Your task to perform on an android device: Go to Amazon Image 0: 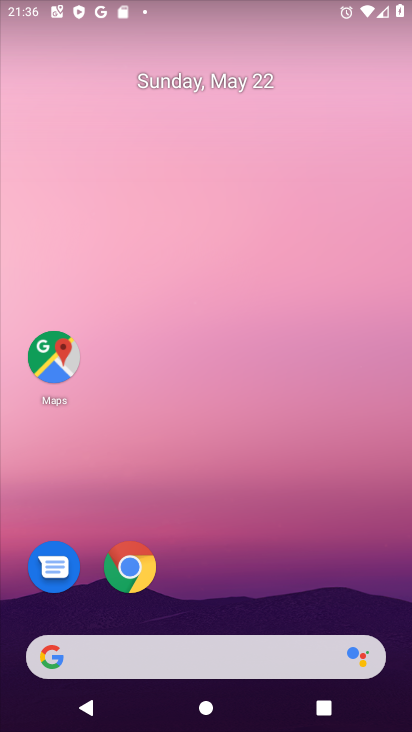
Step 0: click (131, 570)
Your task to perform on an android device: Go to Amazon Image 1: 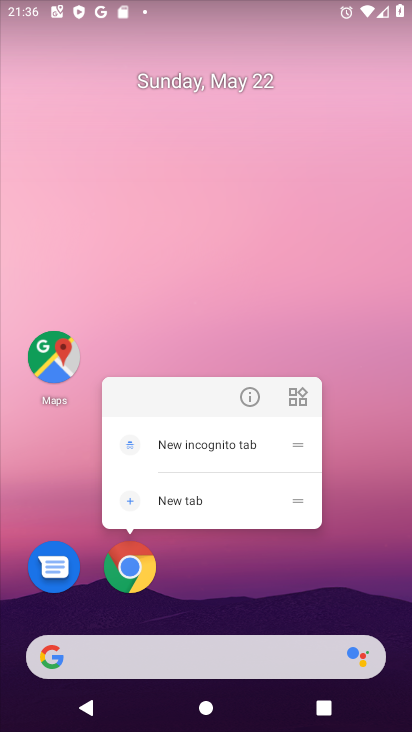
Step 1: click (131, 570)
Your task to perform on an android device: Go to Amazon Image 2: 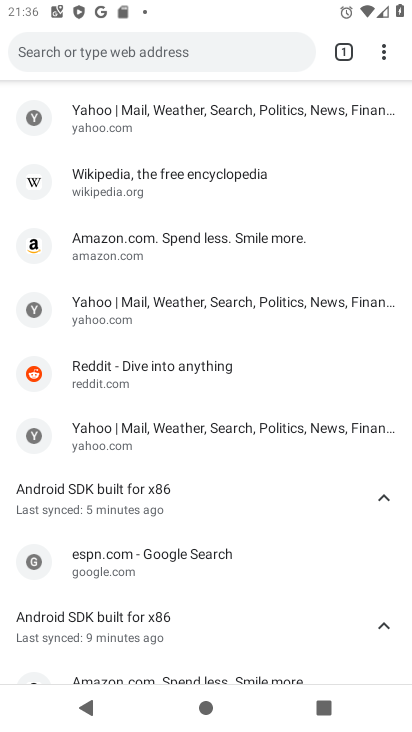
Step 2: click (141, 48)
Your task to perform on an android device: Go to Amazon Image 3: 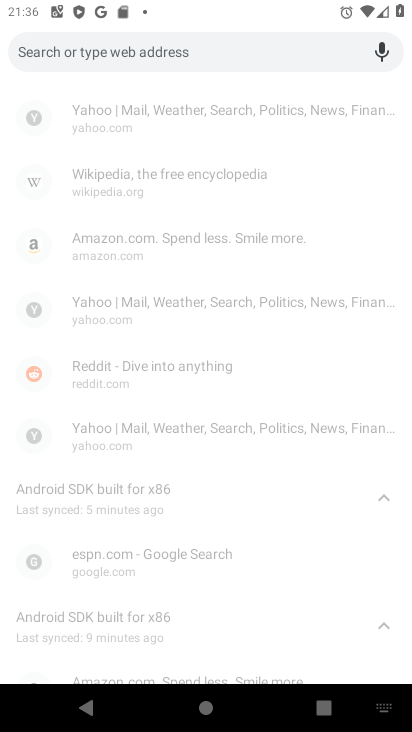
Step 3: type "Amazon"
Your task to perform on an android device: Go to Amazon Image 4: 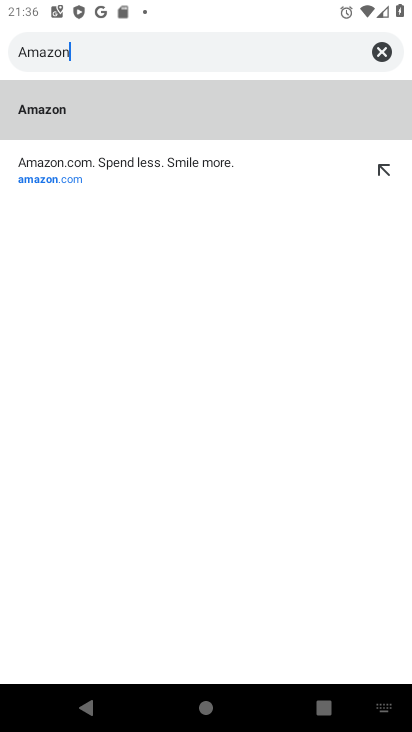
Step 4: click (152, 169)
Your task to perform on an android device: Go to Amazon Image 5: 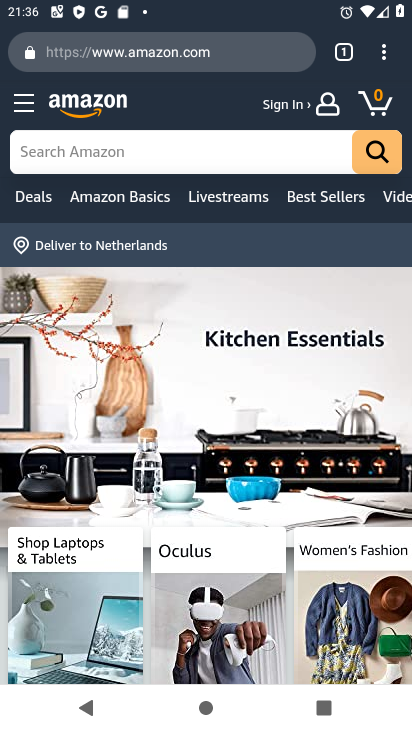
Step 5: task complete